Your task to perform on an android device: toggle pop-ups in chrome Image 0: 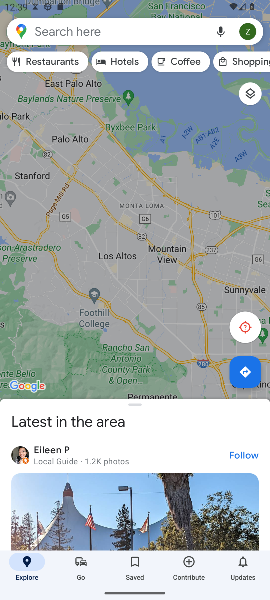
Step 0: press home button
Your task to perform on an android device: toggle pop-ups in chrome Image 1: 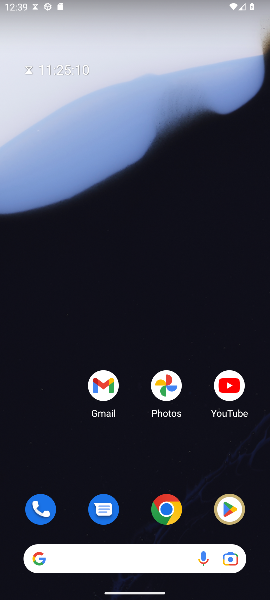
Step 1: click (182, 515)
Your task to perform on an android device: toggle pop-ups in chrome Image 2: 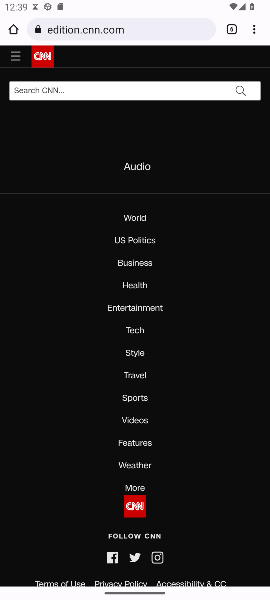
Step 2: press home button
Your task to perform on an android device: toggle pop-ups in chrome Image 3: 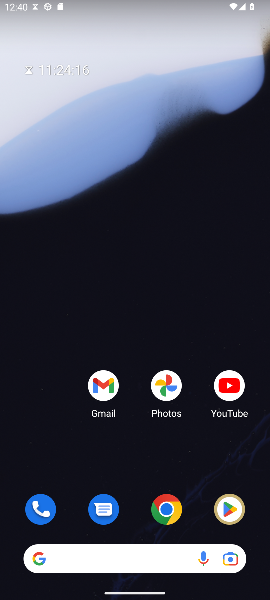
Step 3: click (174, 497)
Your task to perform on an android device: toggle pop-ups in chrome Image 4: 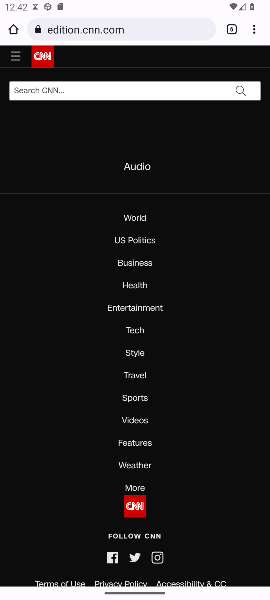
Step 4: press home button
Your task to perform on an android device: toggle pop-ups in chrome Image 5: 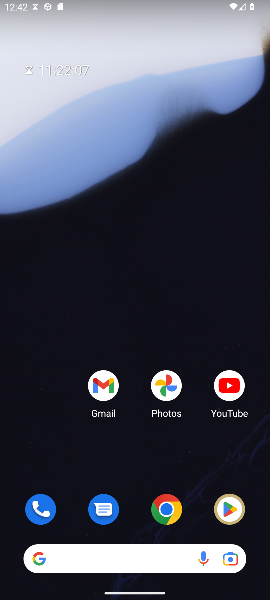
Step 5: click (180, 504)
Your task to perform on an android device: toggle pop-ups in chrome Image 6: 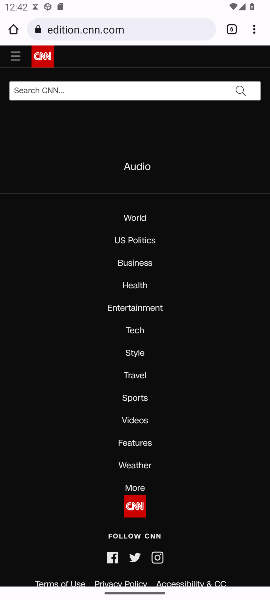
Step 6: click (256, 28)
Your task to perform on an android device: toggle pop-ups in chrome Image 7: 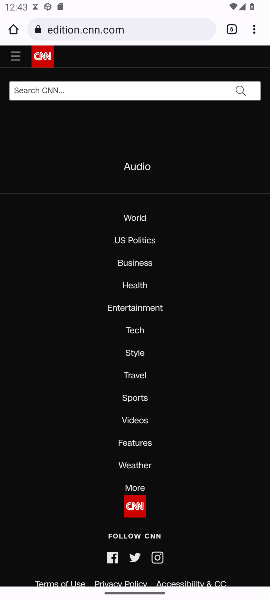
Step 7: drag from (254, 32) to (176, 374)
Your task to perform on an android device: toggle pop-ups in chrome Image 8: 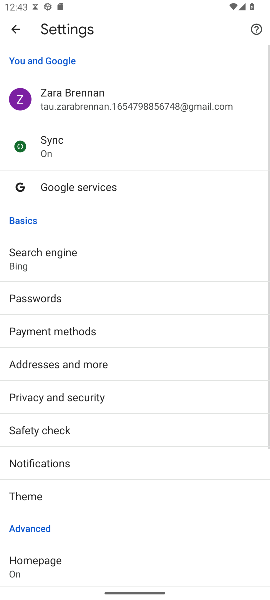
Step 8: drag from (166, 504) to (149, 199)
Your task to perform on an android device: toggle pop-ups in chrome Image 9: 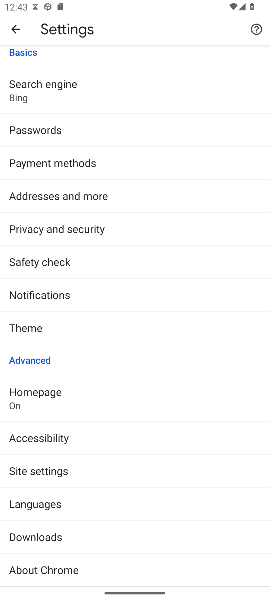
Step 9: click (54, 479)
Your task to perform on an android device: toggle pop-ups in chrome Image 10: 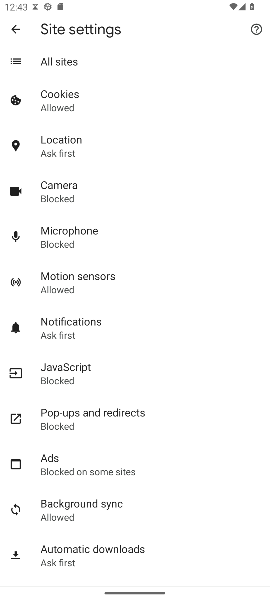
Step 10: click (73, 424)
Your task to perform on an android device: toggle pop-ups in chrome Image 11: 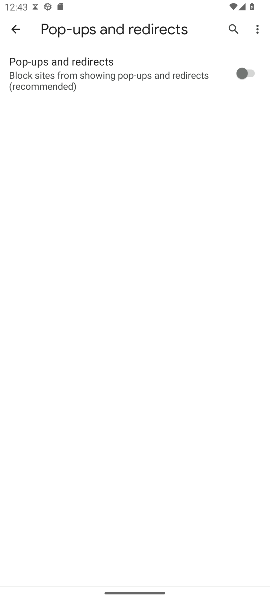
Step 11: click (238, 76)
Your task to perform on an android device: toggle pop-ups in chrome Image 12: 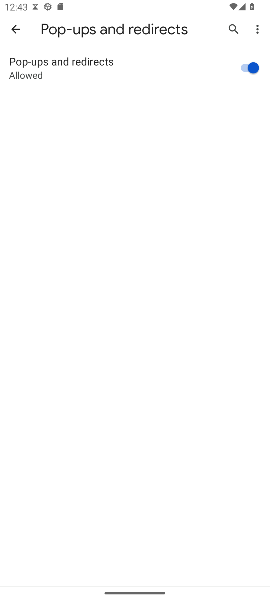
Step 12: task complete